Your task to perform on an android device: uninstall "Google Sheets" Image 0: 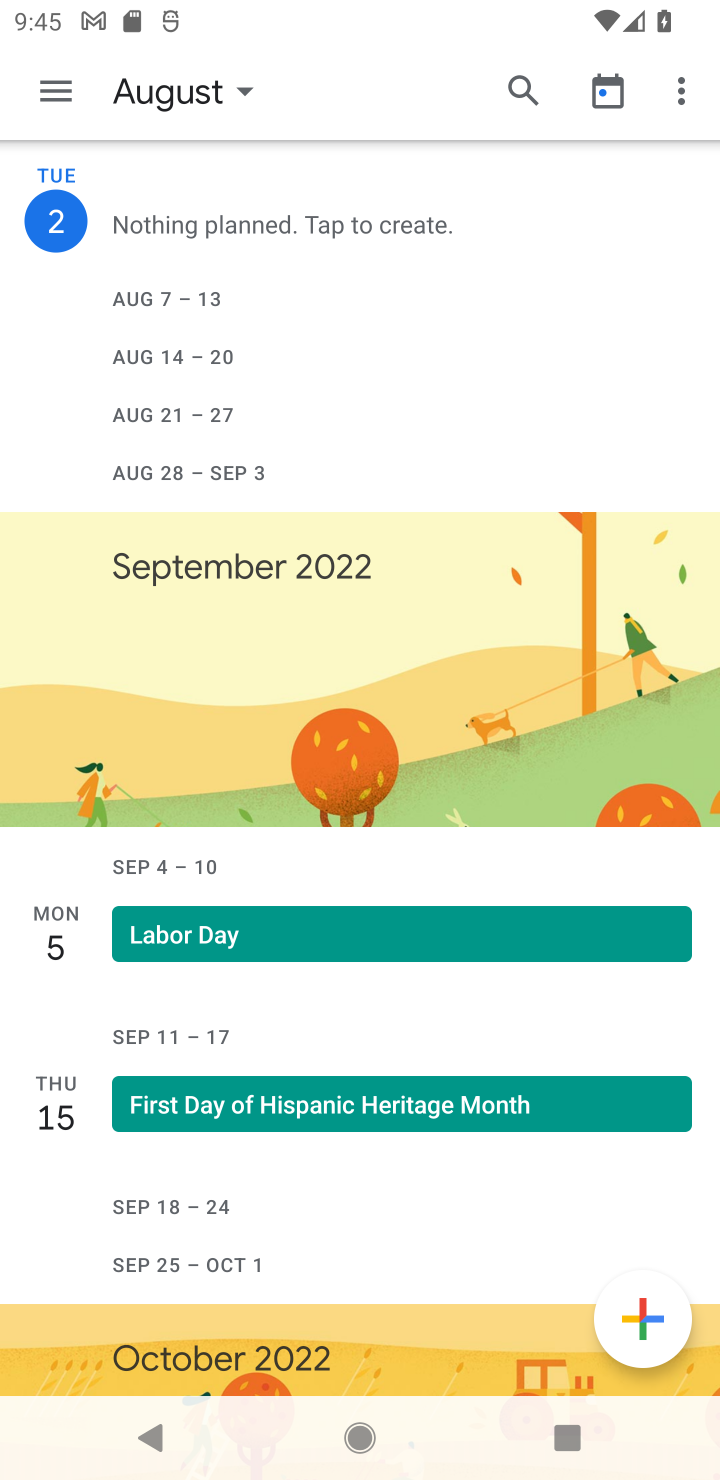
Step 0: press home button
Your task to perform on an android device: uninstall "Google Sheets" Image 1: 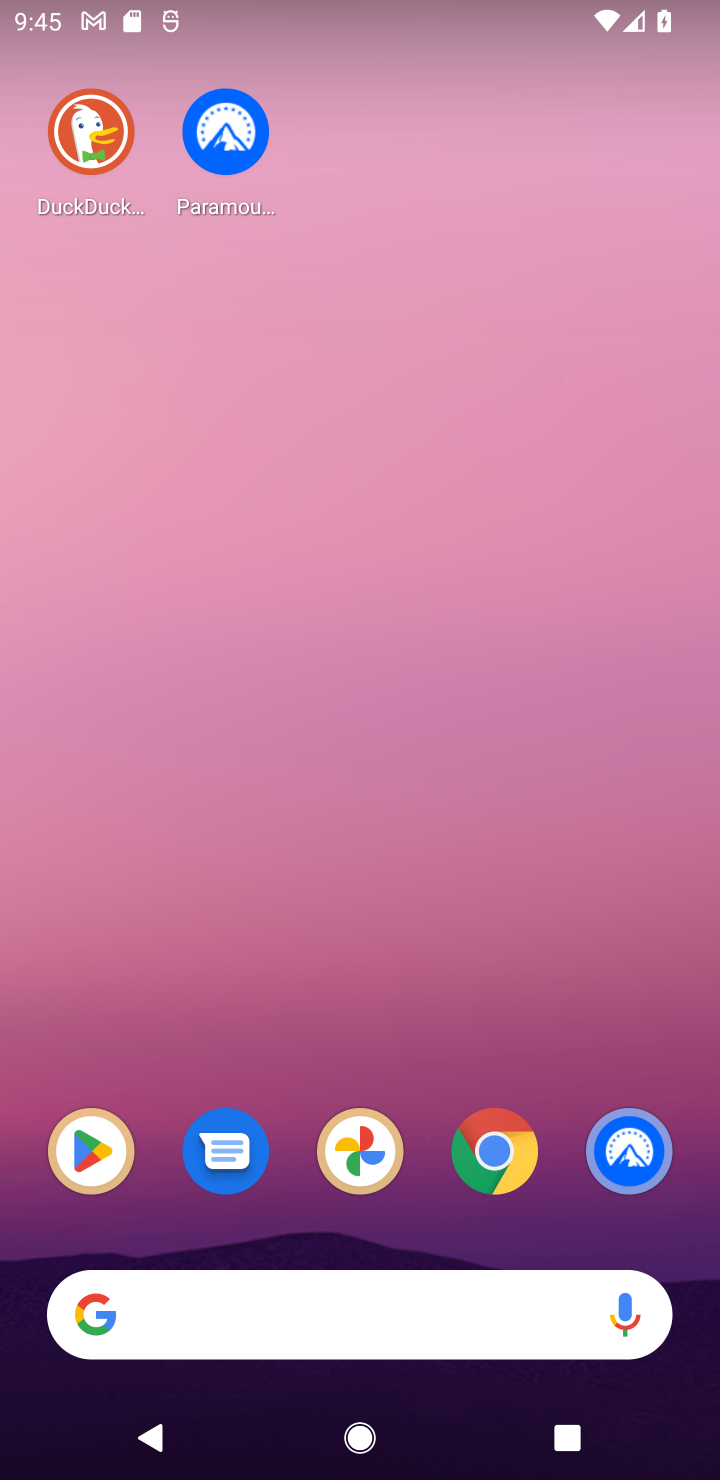
Step 1: drag from (341, 1257) to (273, 66)
Your task to perform on an android device: uninstall "Google Sheets" Image 2: 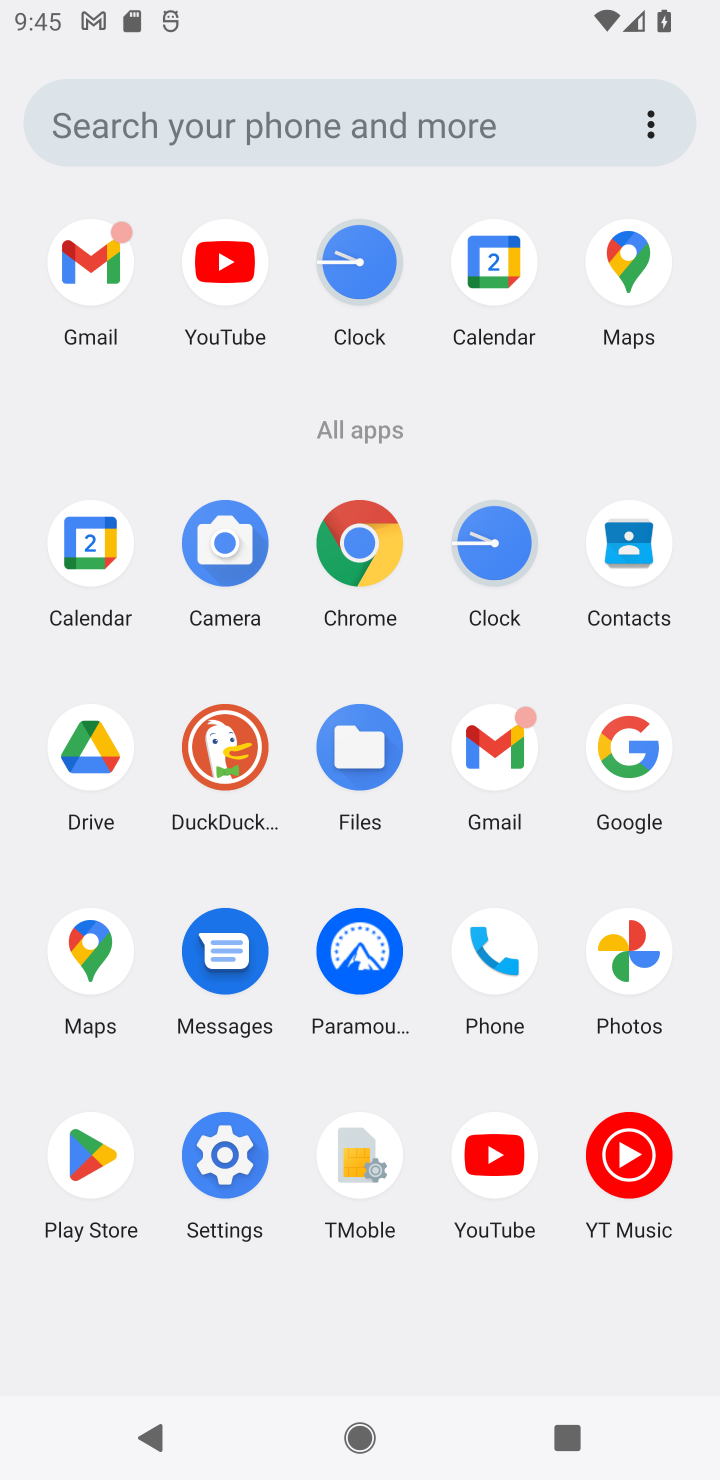
Step 2: click (60, 1163)
Your task to perform on an android device: uninstall "Google Sheets" Image 3: 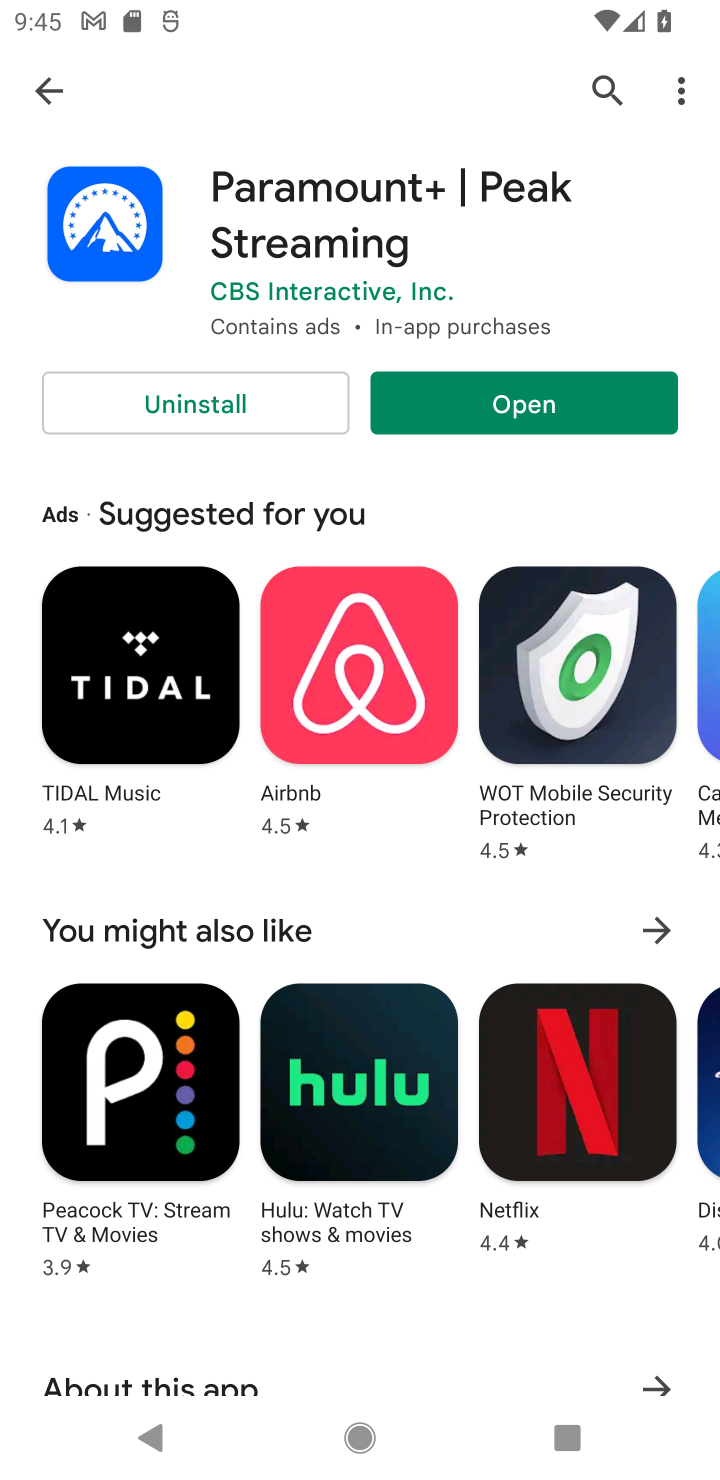
Step 3: click (44, 83)
Your task to perform on an android device: uninstall "Google Sheets" Image 4: 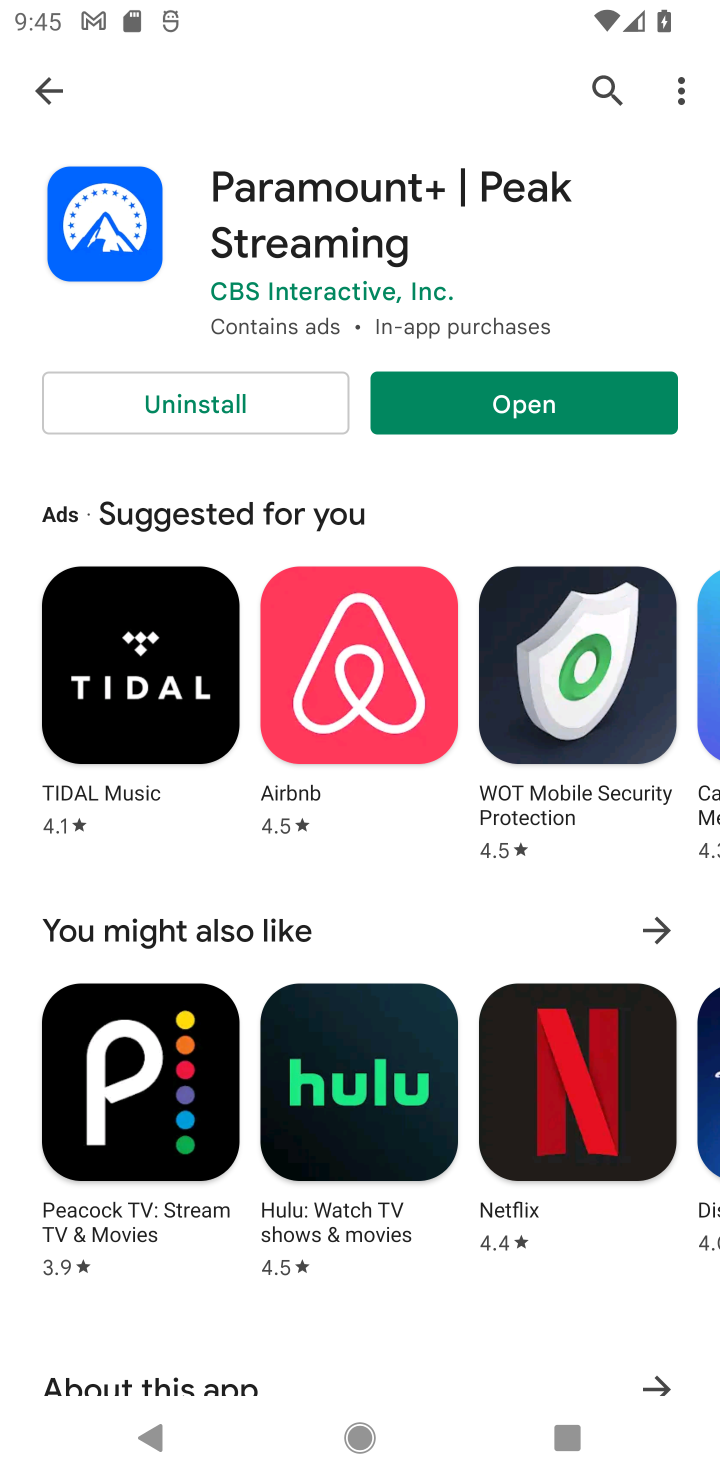
Step 4: click (62, 82)
Your task to perform on an android device: uninstall "Google Sheets" Image 5: 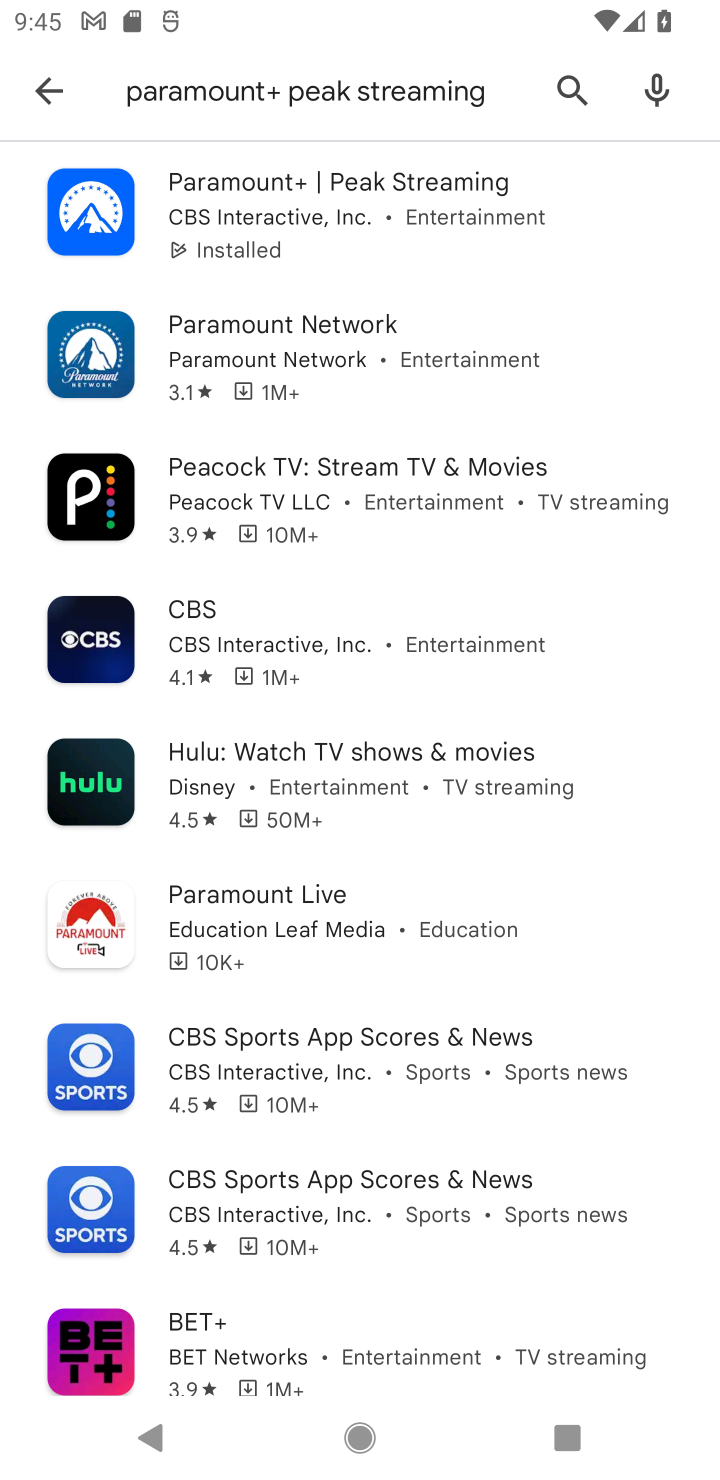
Step 5: click (70, 91)
Your task to perform on an android device: uninstall "Google Sheets" Image 6: 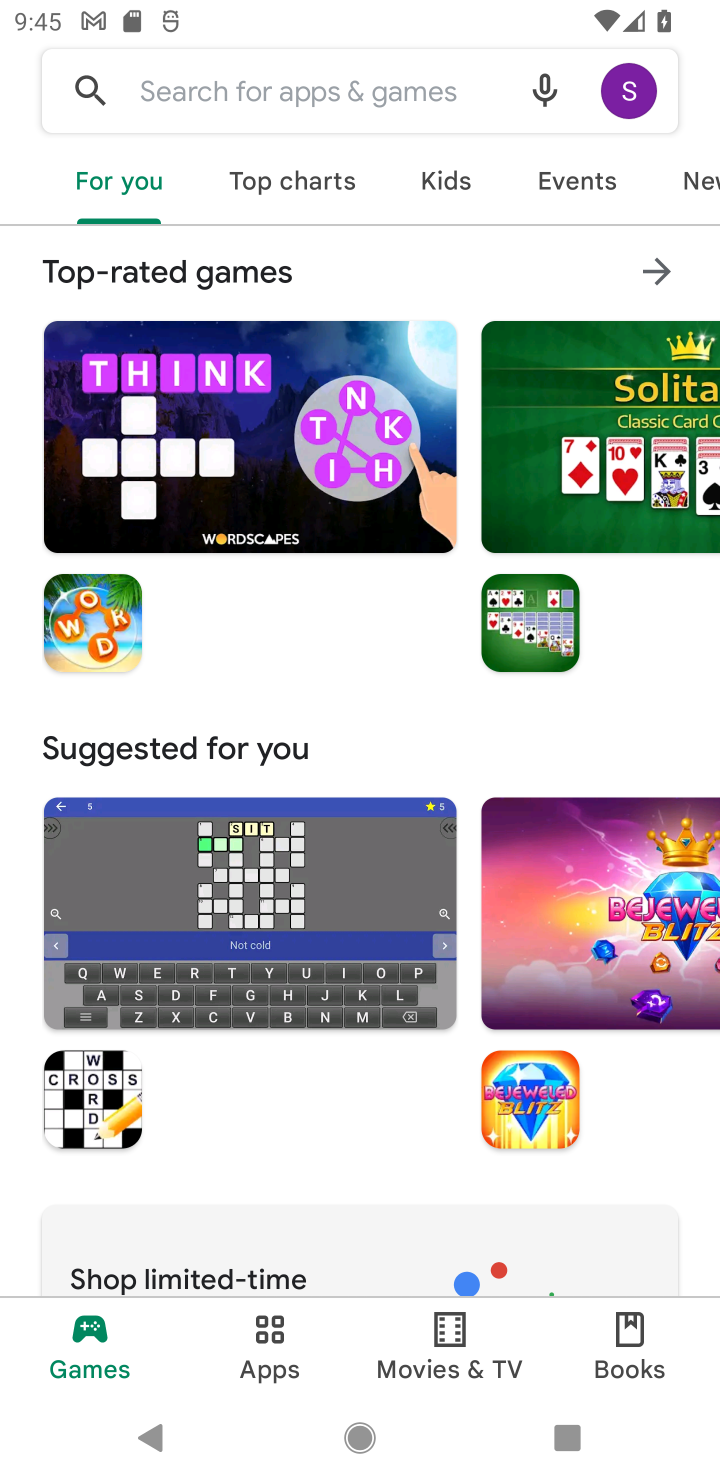
Step 6: click (351, 97)
Your task to perform on an android device: uninstall "Google Sheets" Image 7: 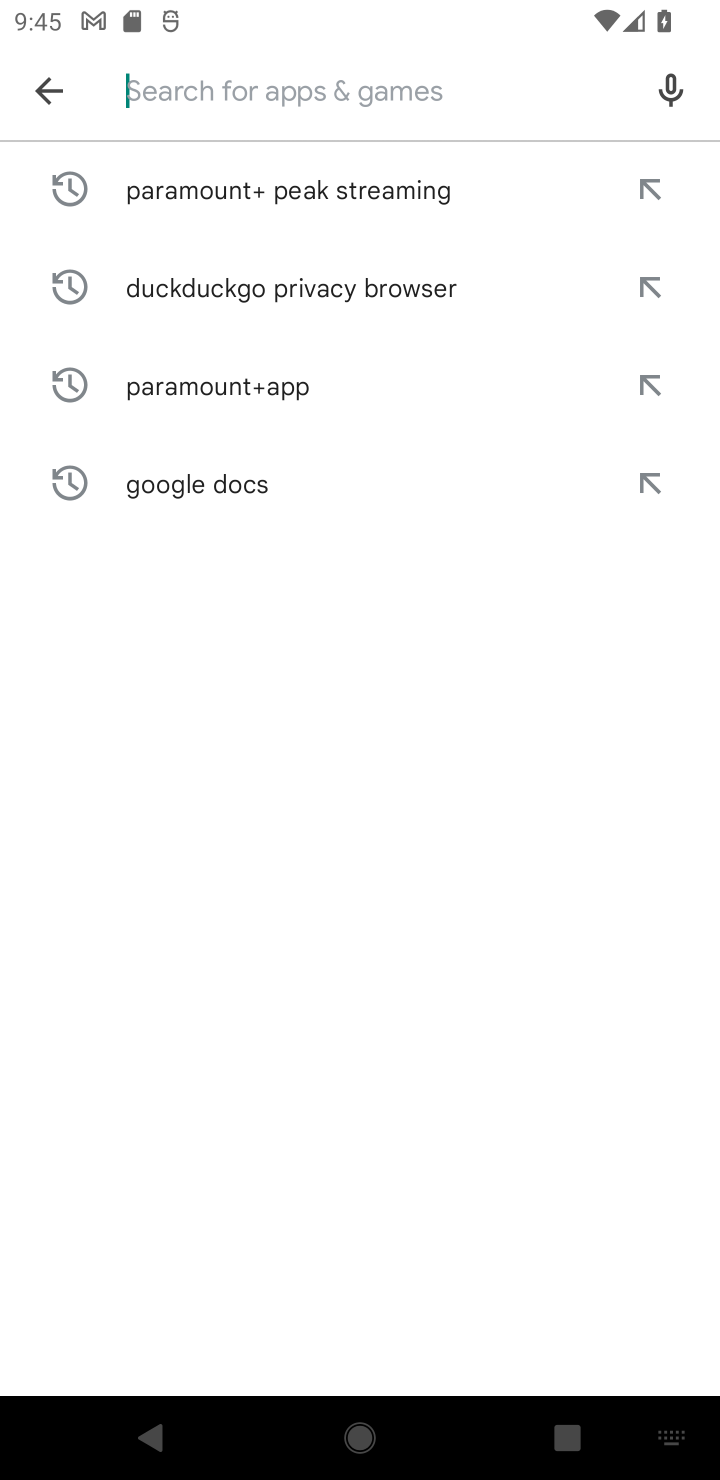
Step 7: type "Google Sheets"
Your task to perform on an android device: uninstall "Google Sheets" Image 8: 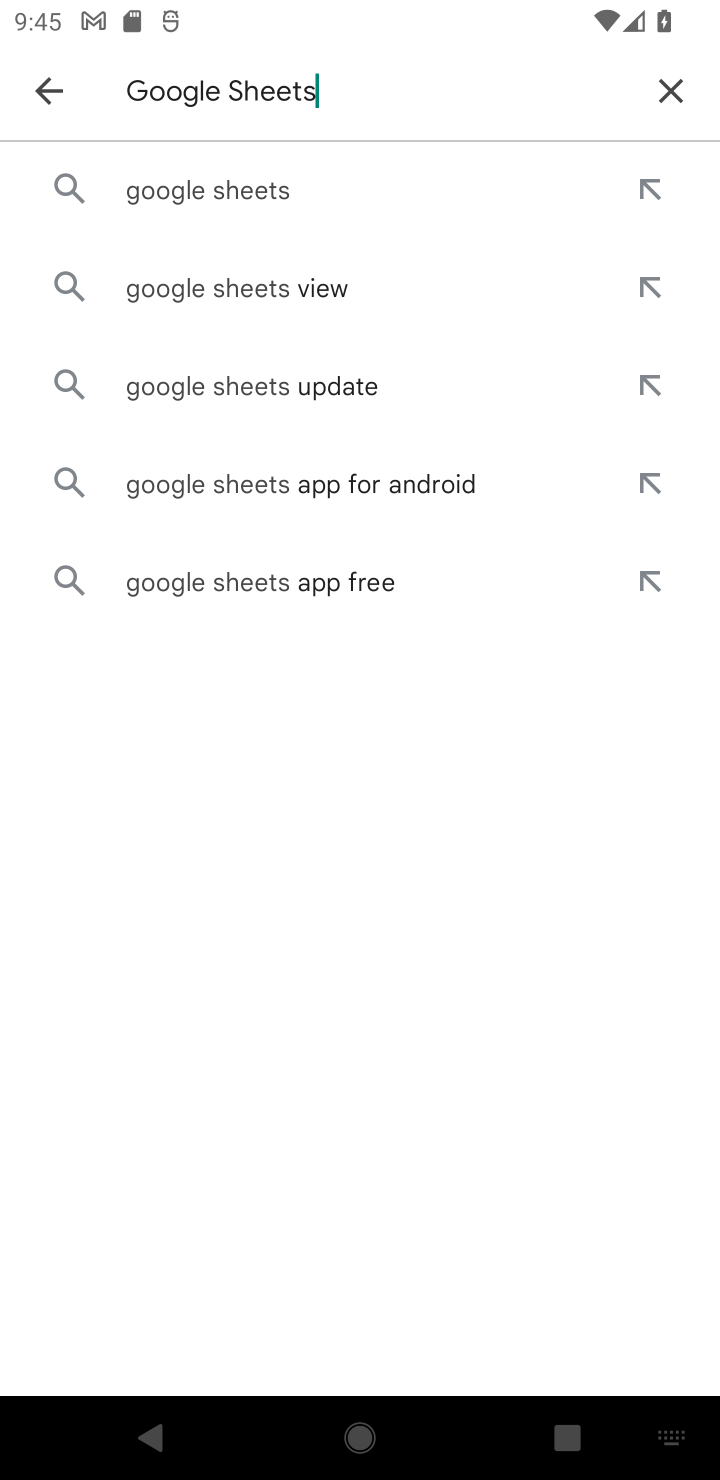
Step 8: click (251, 185)
Your task to perform on an android device: uninstall "Google Sheets" Image 9: 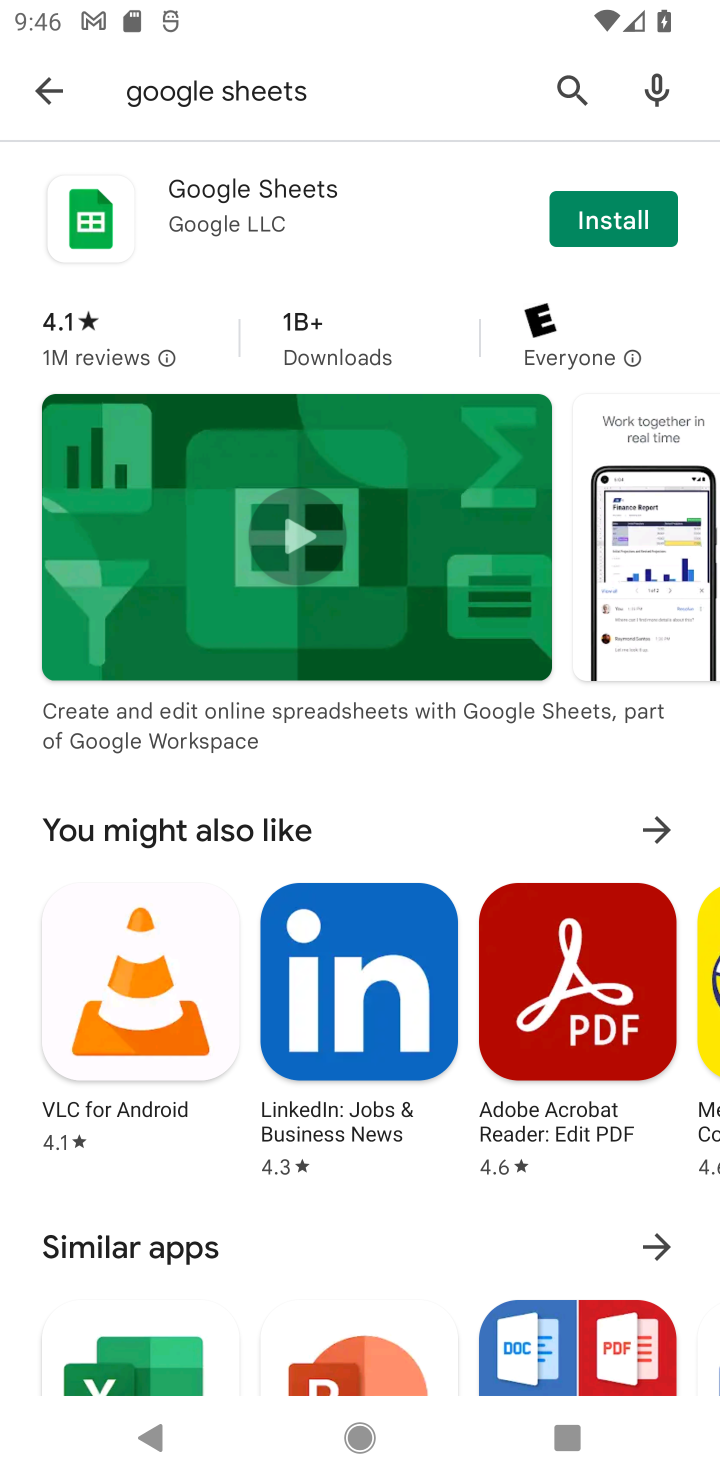
Step 9: click (251, 185)
Your task to perform on an android device: uninstall "Google Sheets" Image 10: 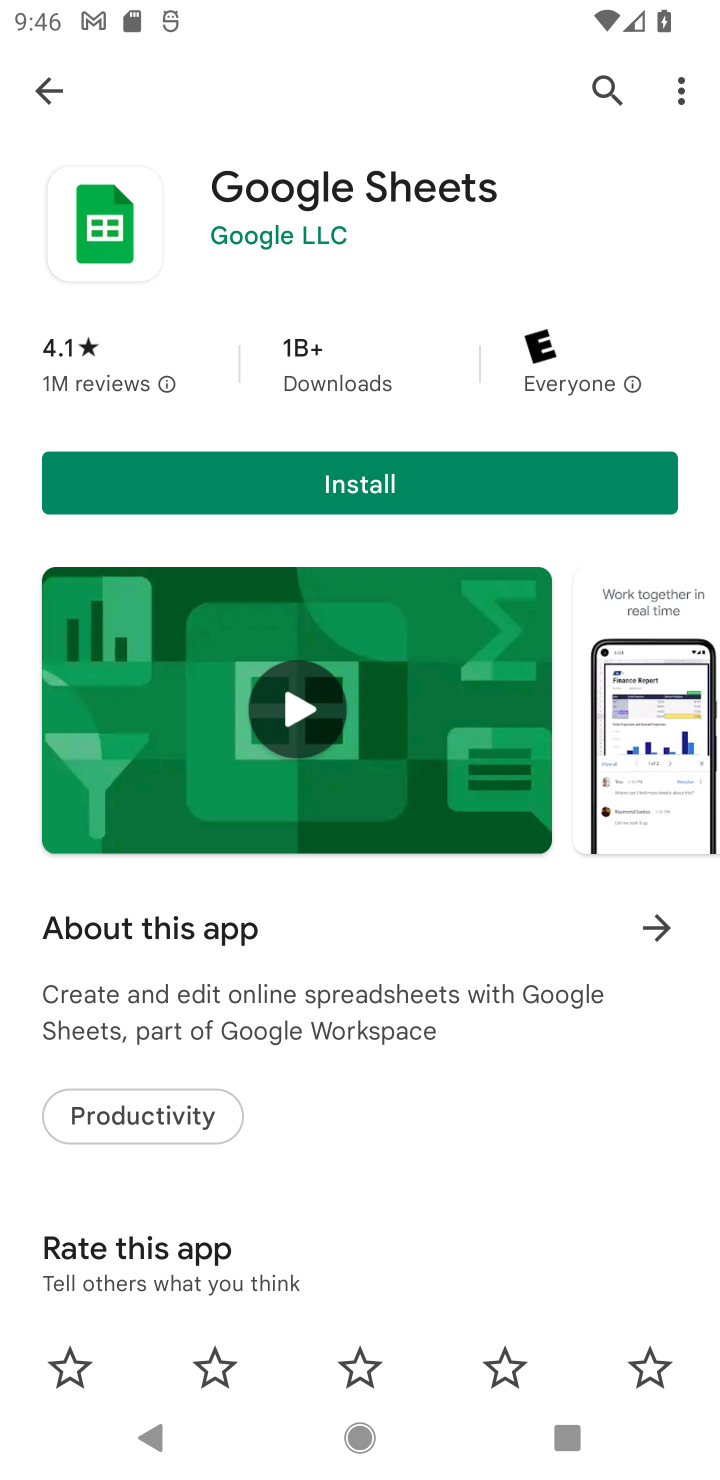
Step 10: task complete